Your task to perform on an android device: change the clock display to show seconds Image 0: 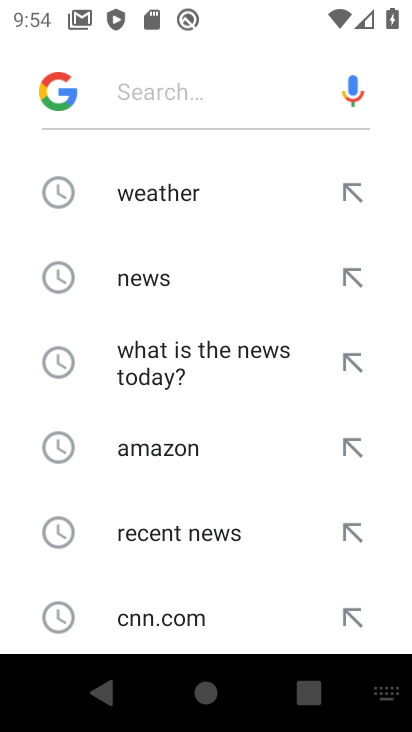
Step 0: press home button
Your task to perform on an android device: change the clock display to show seconds Image 1: 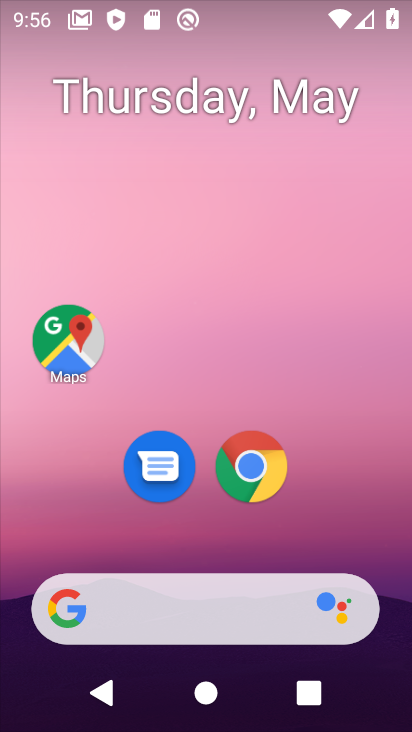
Step 1: drag from (338, 531) to (280, 14)
Your task to perform on an android device: change the clock display to show seconds Image 2: 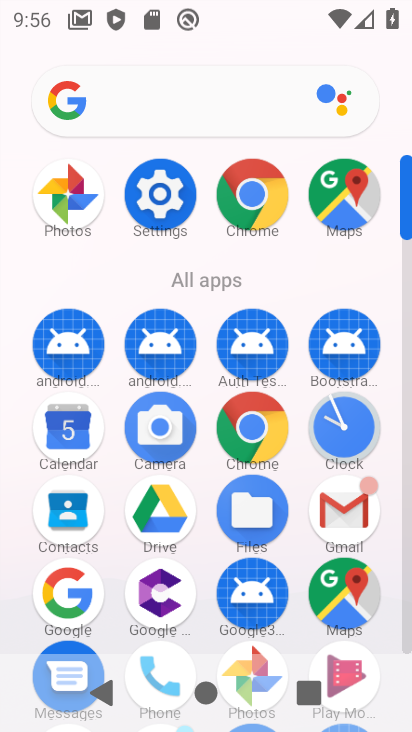
Step 2: click (332, 420)
Your task to perform on an android device: change the clock display to show seconds Image 3: 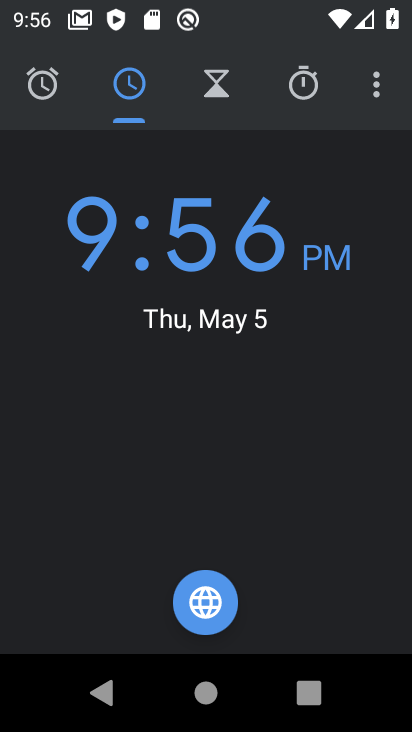
Step 3: click (375, 78)
Your task to perform on an android device: change the clock display to show seconds Image 4: 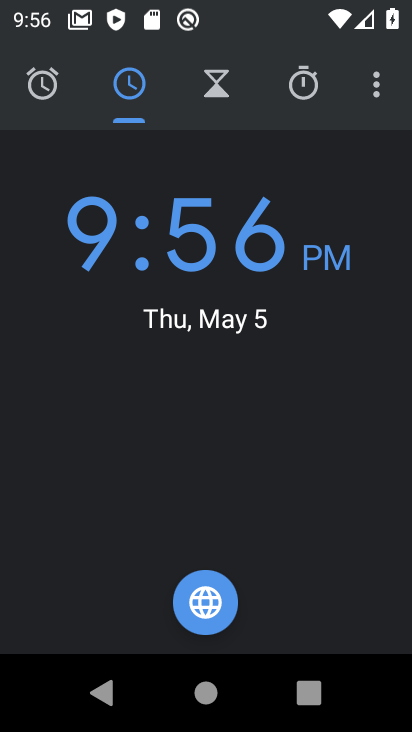
Step 4: click (375, 88)
Your task to perform on an android device: change the clock display to show seconds Image 5: 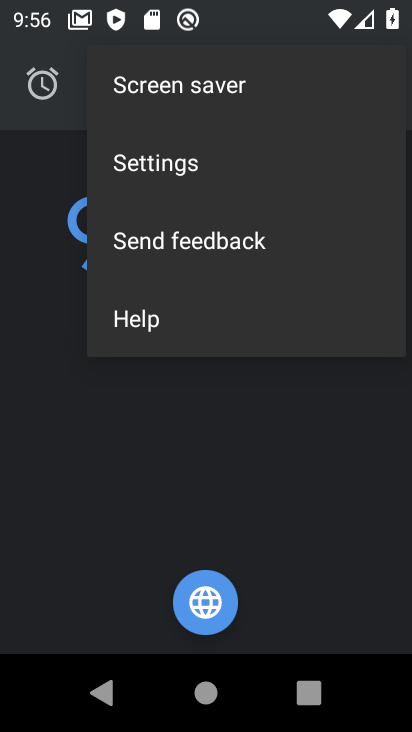
Step 5: click (278, 165)
Your task to perform on an android device: change the clock display to show seconds Image 6: 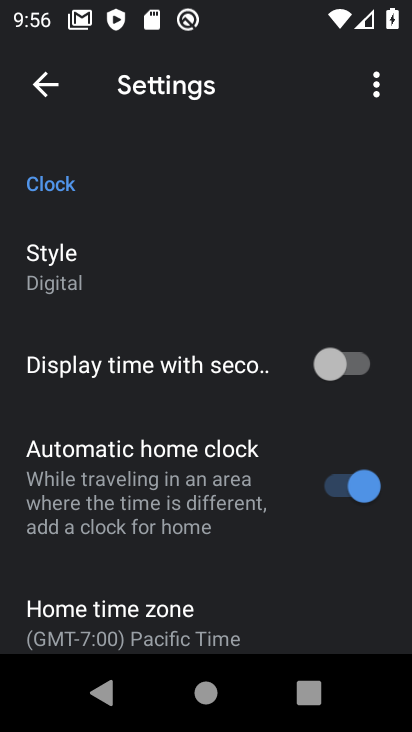
Step 6: click (336, 353)
Your task to perform on an android device: change the clock display to show seconds Image 7: 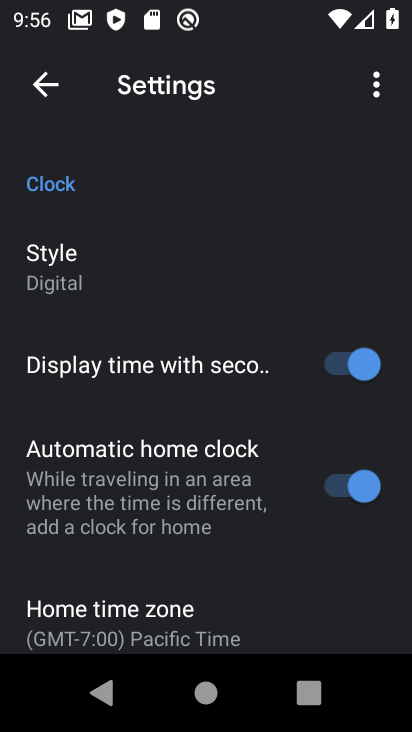
Step 7: task complete